Your task to perform on an android device: Go to accessibility settings Image 0: 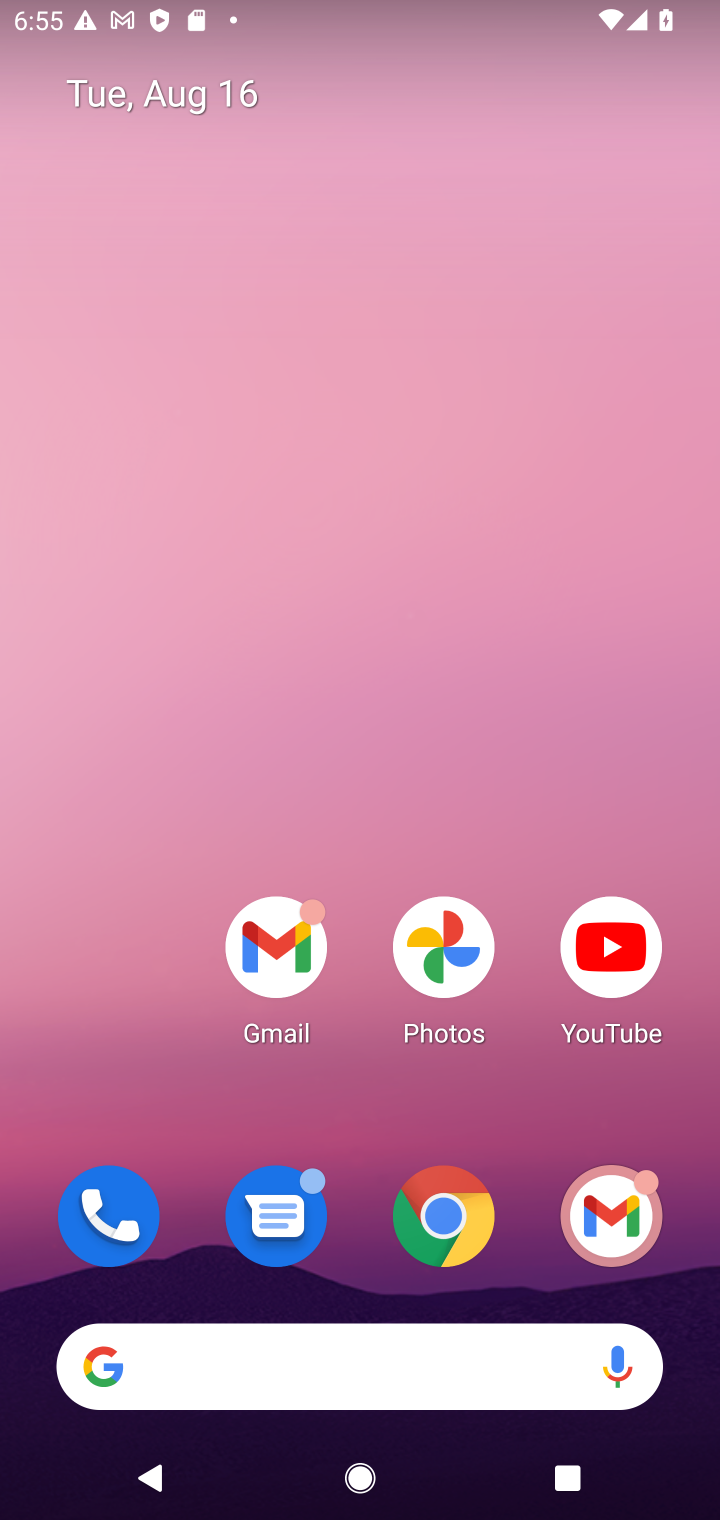
Step 0: press home button
Your task to perform on an android device: Go to accessibility settings Image 1: 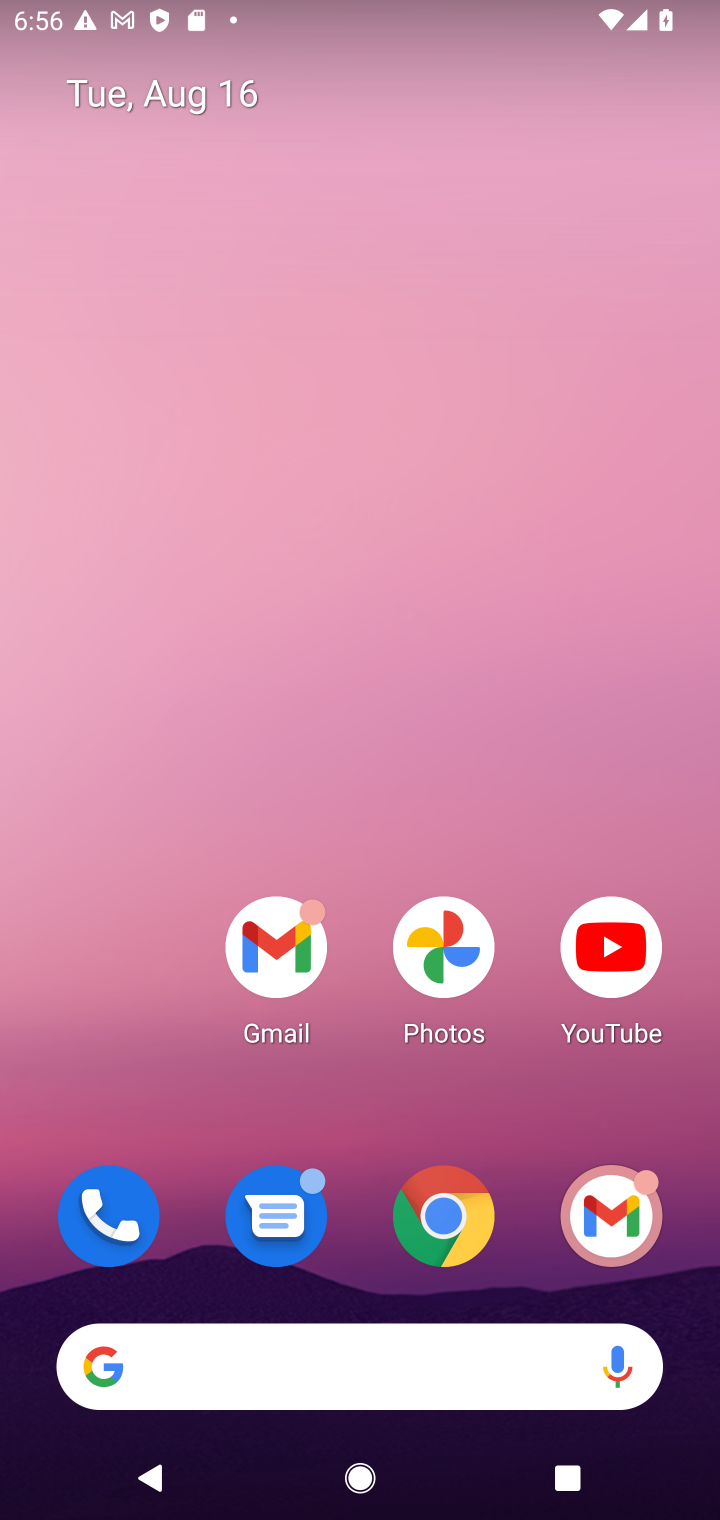
Step 1: drag from (121, 967) to (180, 225)
Your task to perform on an android device: Go to accessibility settings Image 2: 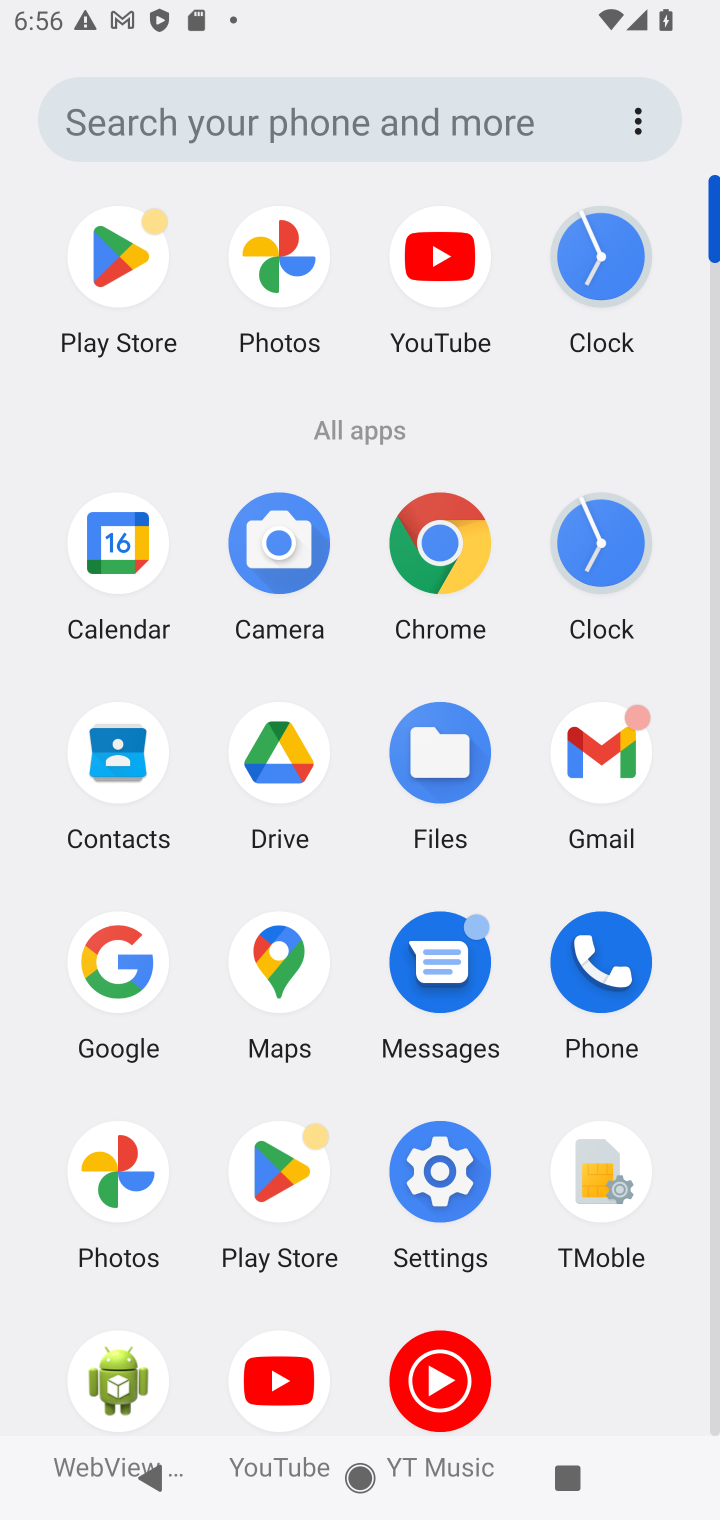
Step 2: click (442, 1185)
Your task to perform on an android device: Go to accessibility settings Image 3: 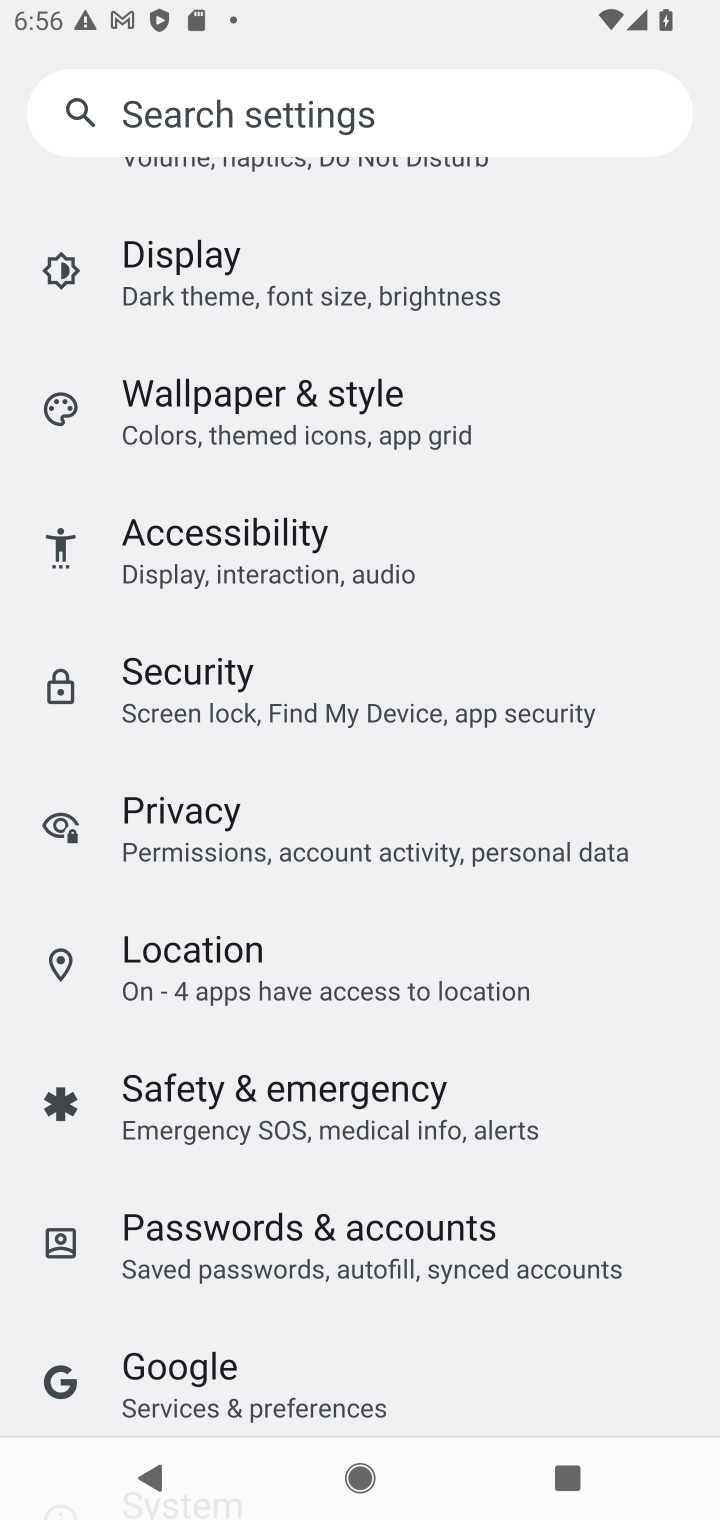
Step 3: drag from (668, 489) to (677, 798)
Your task to perform on an android device: Go to accessibility settings Image 4: 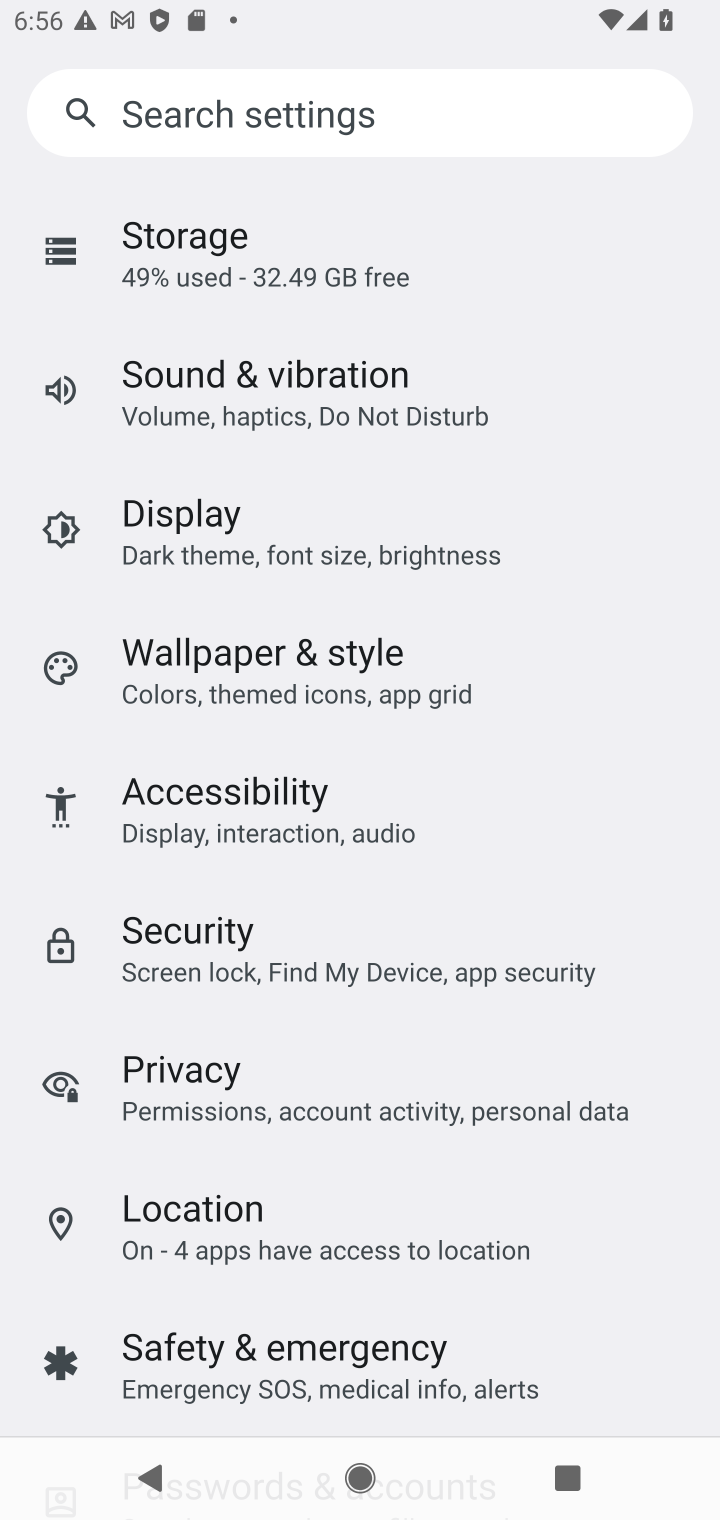
Step 4: drag from (654, 361) to (681, 809)
Your task to perform on an android device: Go to accessibility settings Image 5: 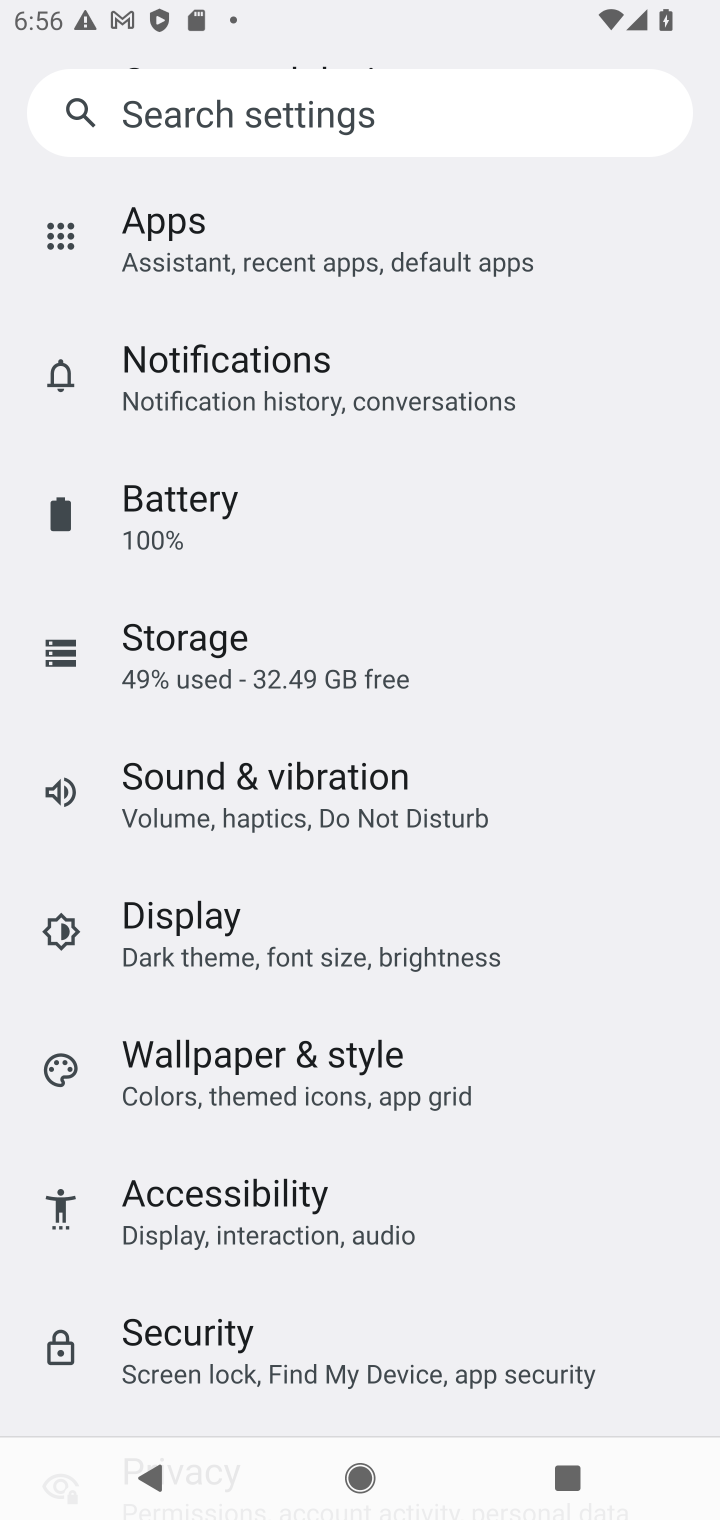
Step 5: click (490, 1224)
Your task to perform on an android device: Go to accessibility settings Image 6: 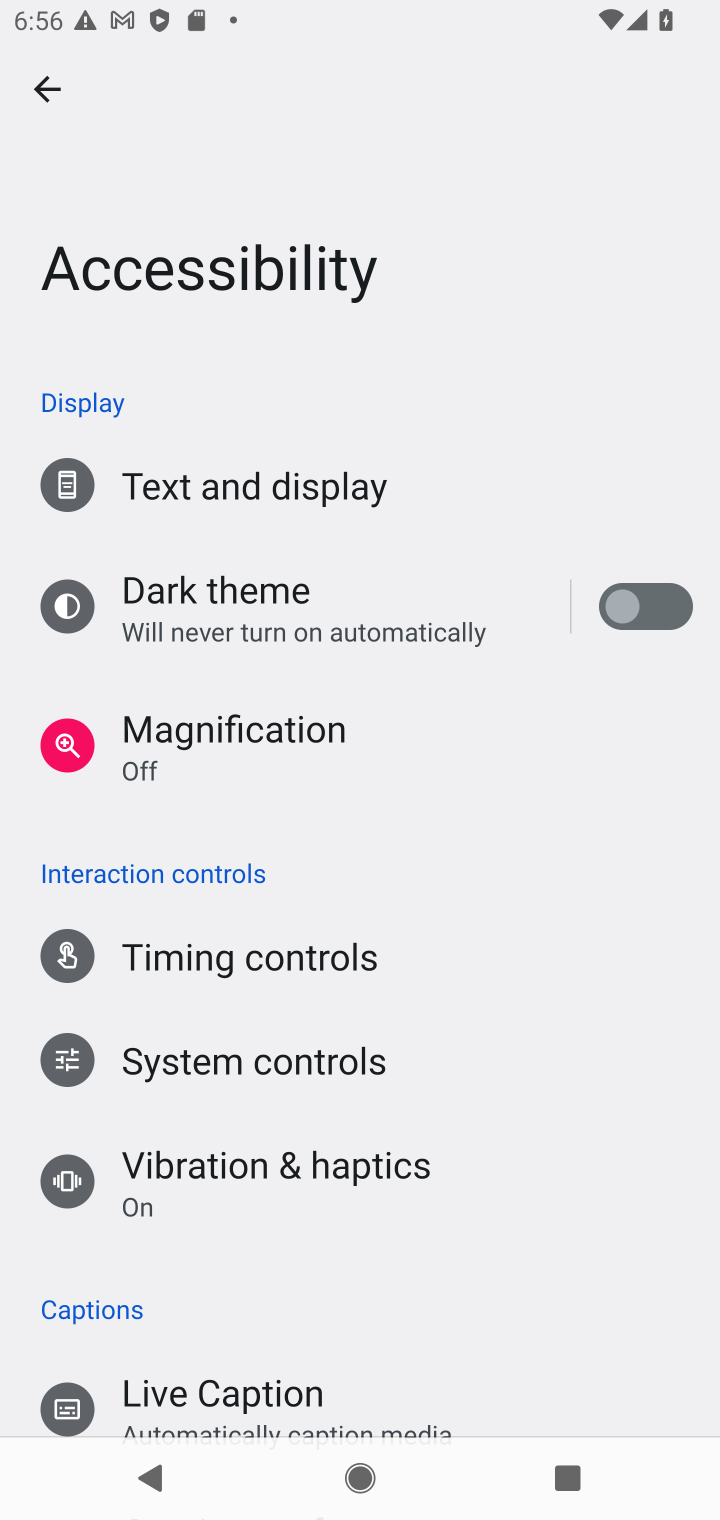
Step 6: task complete